Your task to perform on an android device: turn off sleep mode Image 0: 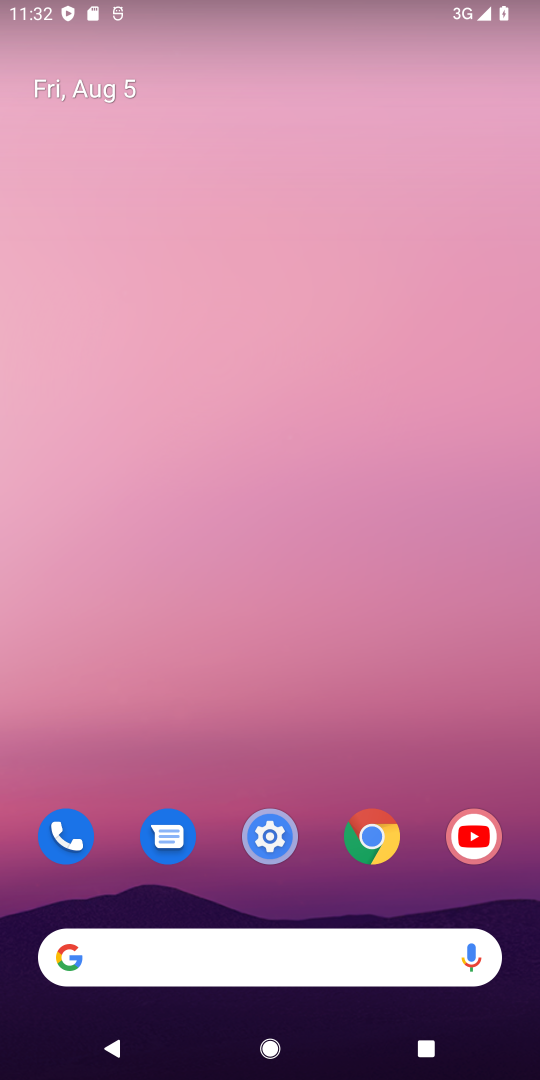
Step 0: drag from (439, 702) to (412, 4)
Your task to perform on an android device: turn off sleep mode Image 1: 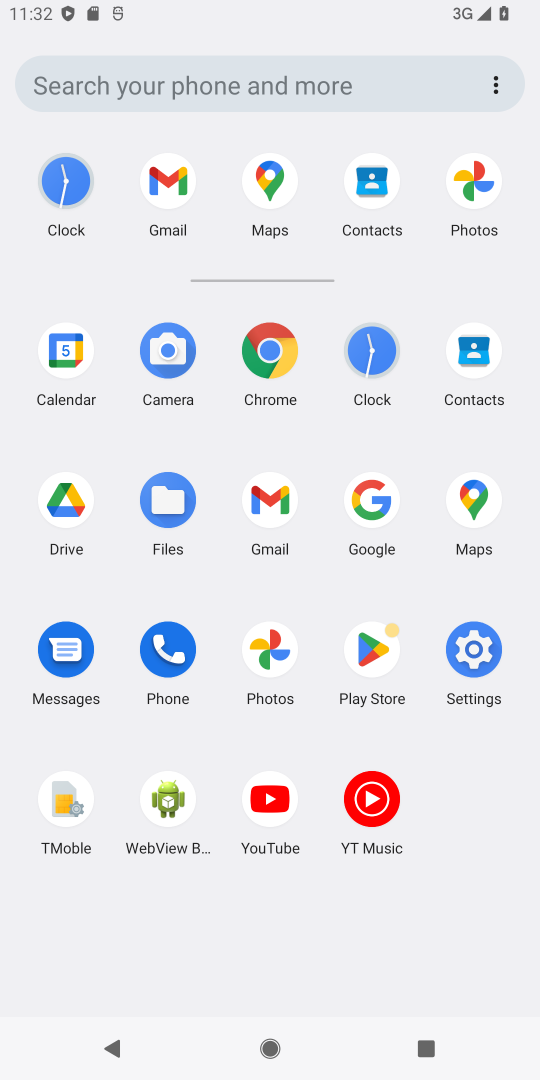
Step 1: click (471, 656)
Your task to perform on an android device: turn off sleep mode Image 2: 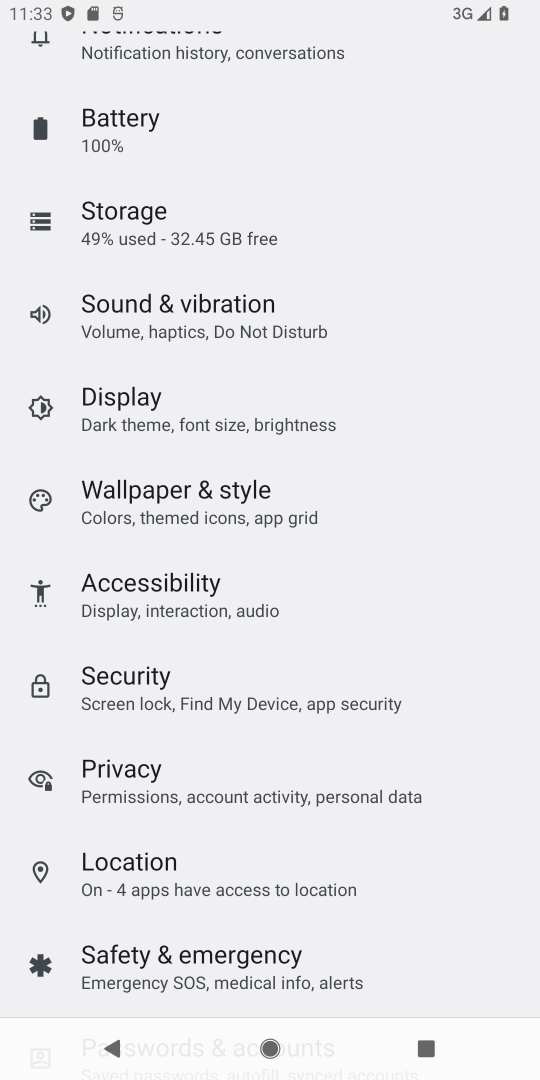
Step 2: click (213, 412)
Your task to perform on an android device: turn off sleep mode Image 3: 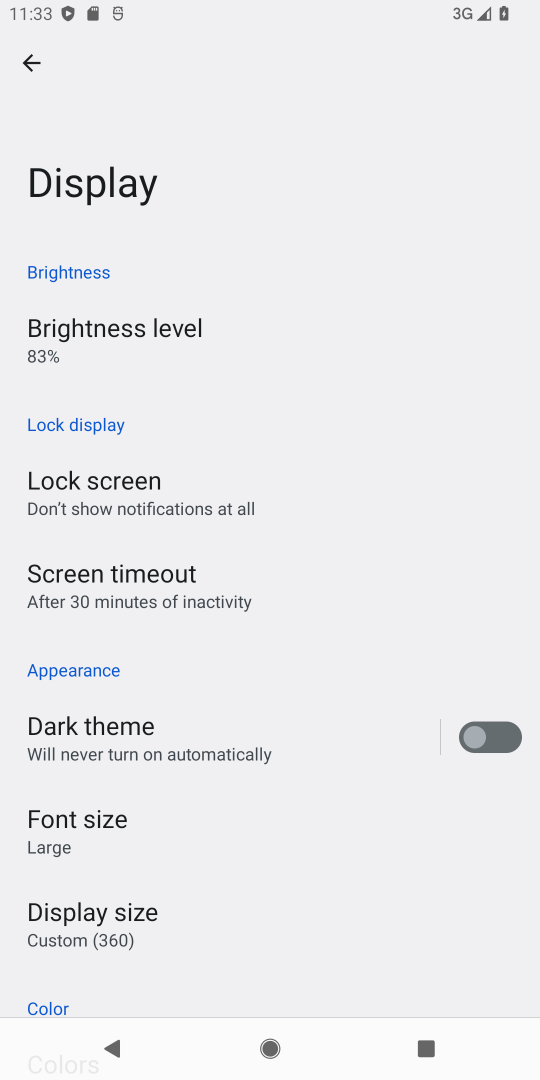
Step 3: click (158, 609)
Your task to perform on an android device: turn off sleep mode Image 4: 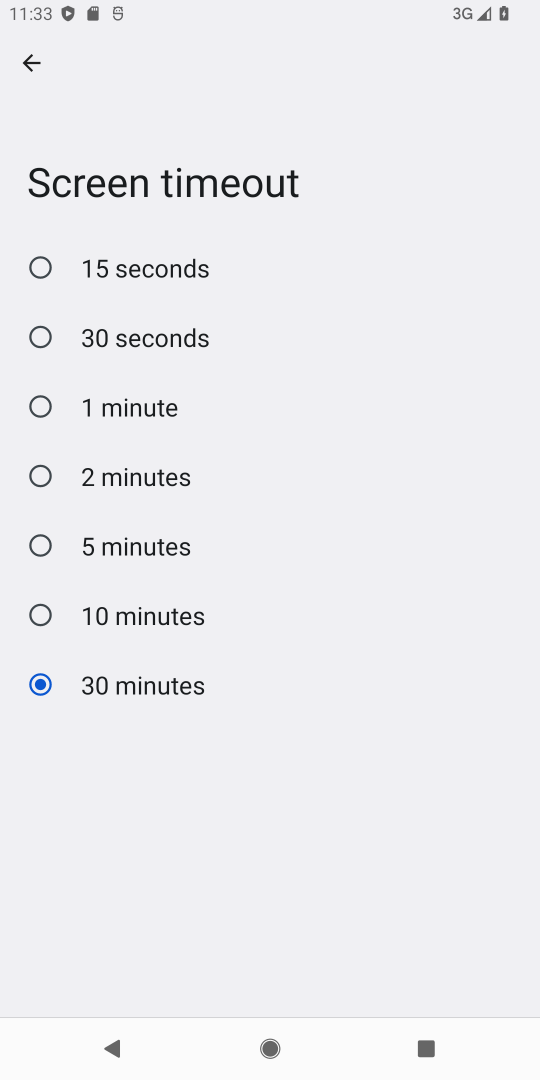
Step 4: task complete